Your task to perform on an android device: Search for "beats solo 3" on amazon.com, select the first entry, and add it to the cart. Image 0: 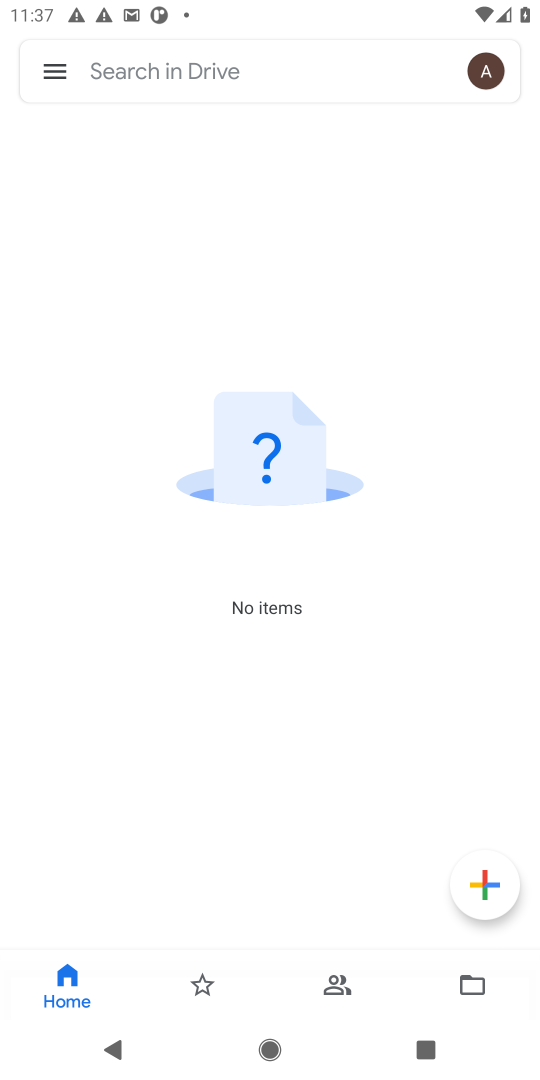
Step 0: press home button
Your task to perform on an android device: Search for "beats solo 3" on amazon.com, select the first entry, and add it to the cart. Image 1: 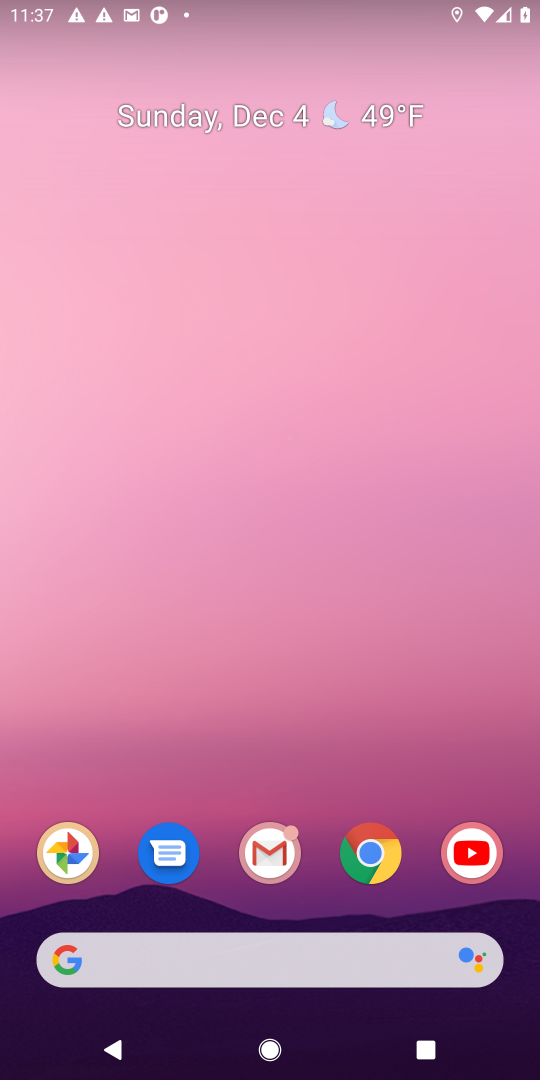
Step 1: click (389, 875)
Your task to perform on an android device: Search for "beats solo 3" on amazon.com, select the first entry, and add it to the cart. Image 2: 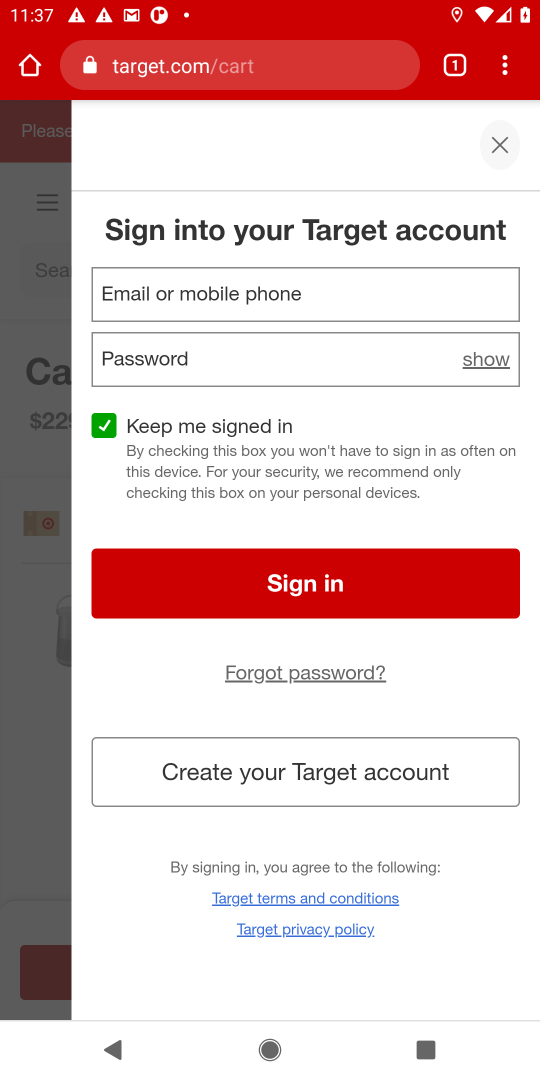
Step 2: click (167, 43)
Your task to perform on an android device: Search for "beats solo 3" on amazon.com, select the first entry, and add it to the cart. Image 3: 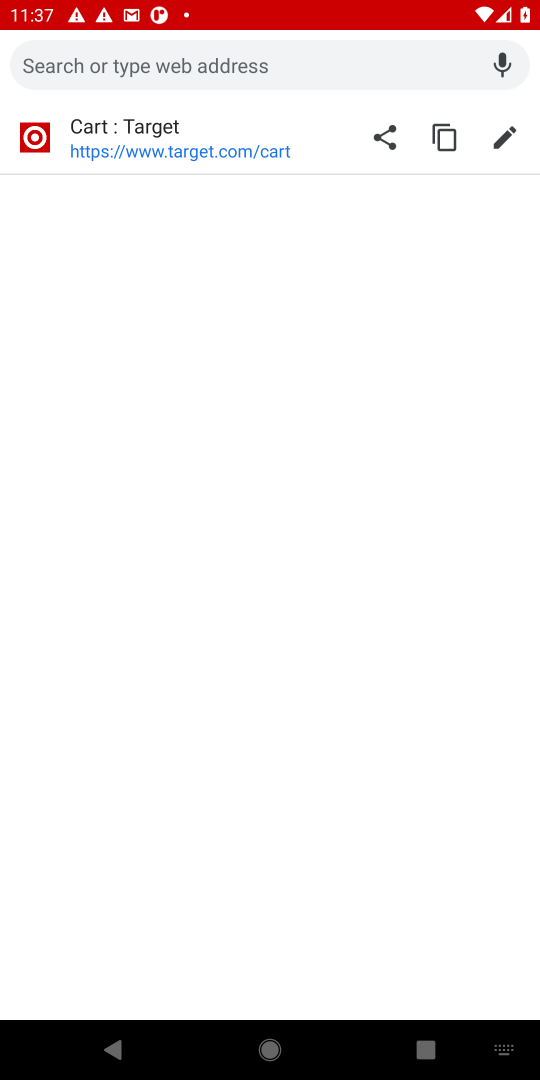
Step 3: type "amazon"
Your task to perform on an android device: Search for "beats solo 3" on amazon.com, select the first entry, and add it to the cart. Image 4: 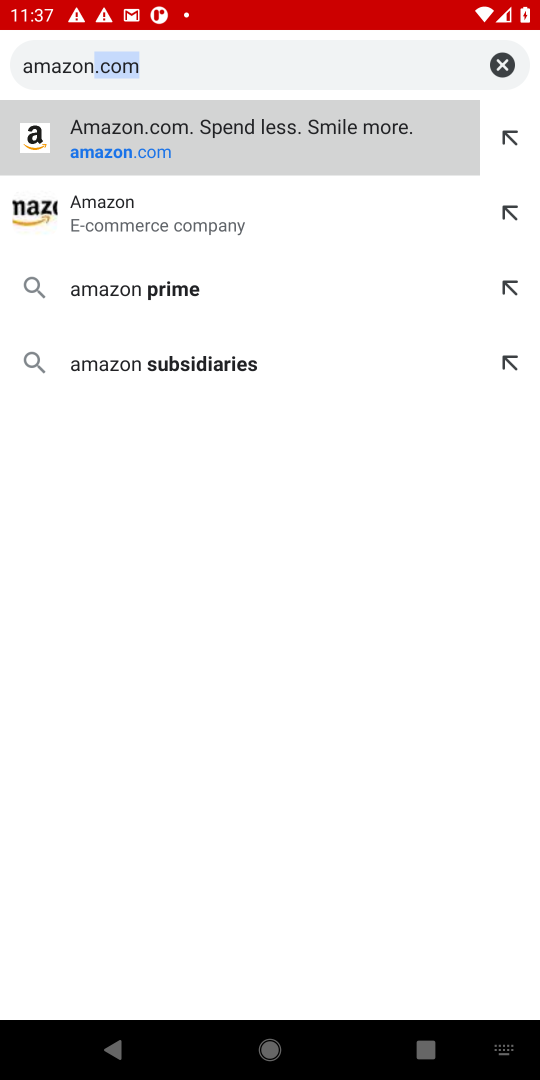
Step 4: click (274, 122)
Your task to perform on an android device: Search for "beats solo 3" on amazon.com, select the first entry, and add it to the cart. Image 5: 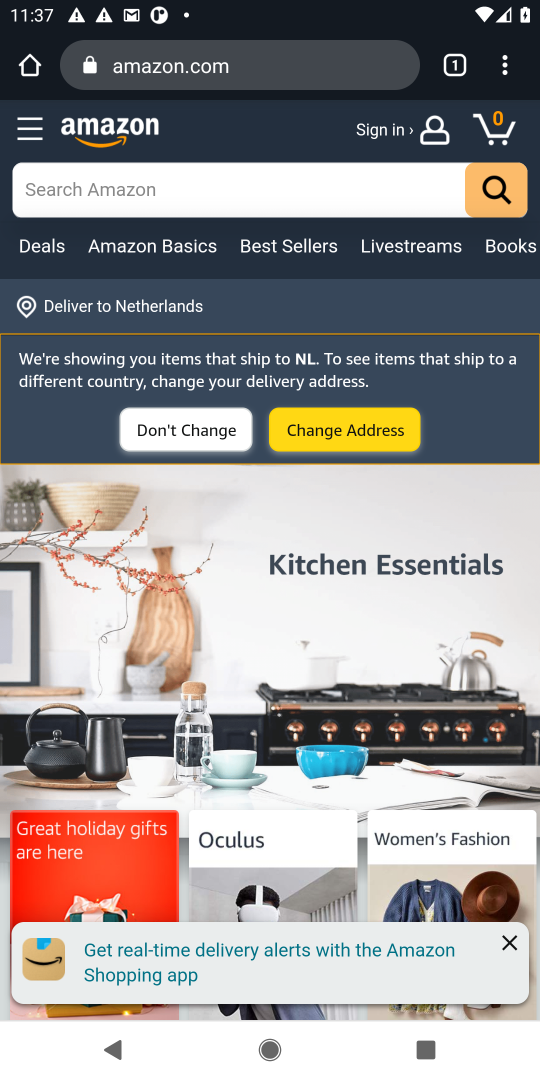
Step 5: click (89, 191)
Your task to perform on an android device: Search for "beats solo 3" on amazon.com, select the first entry, and add it to the cart. Image 6: 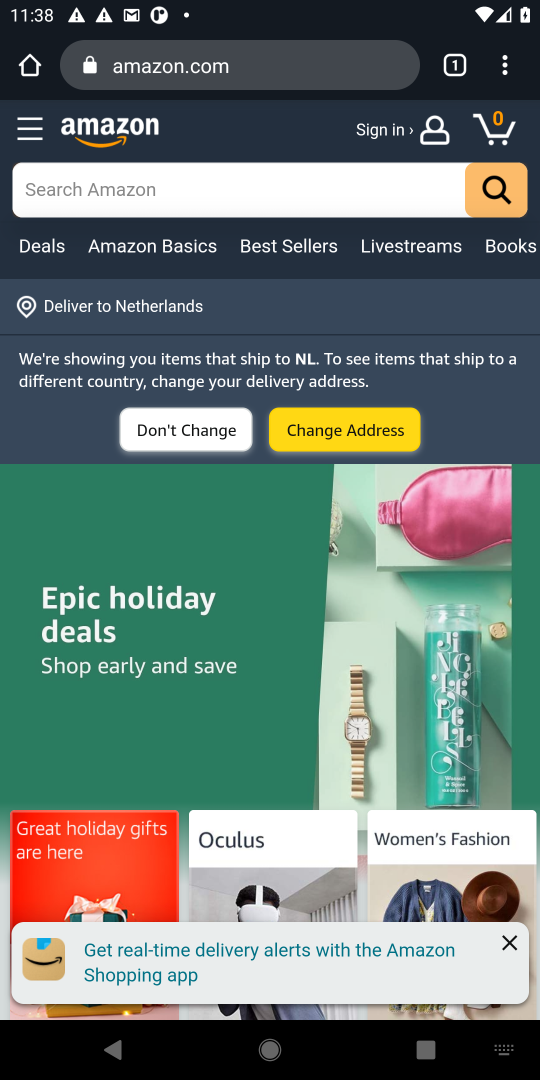
Step 6: click (185, 186)
Your task to perform on an android device: Search for "beats solo 3" on amazon.com, select the first entry, and add it to the cart. Image 7: 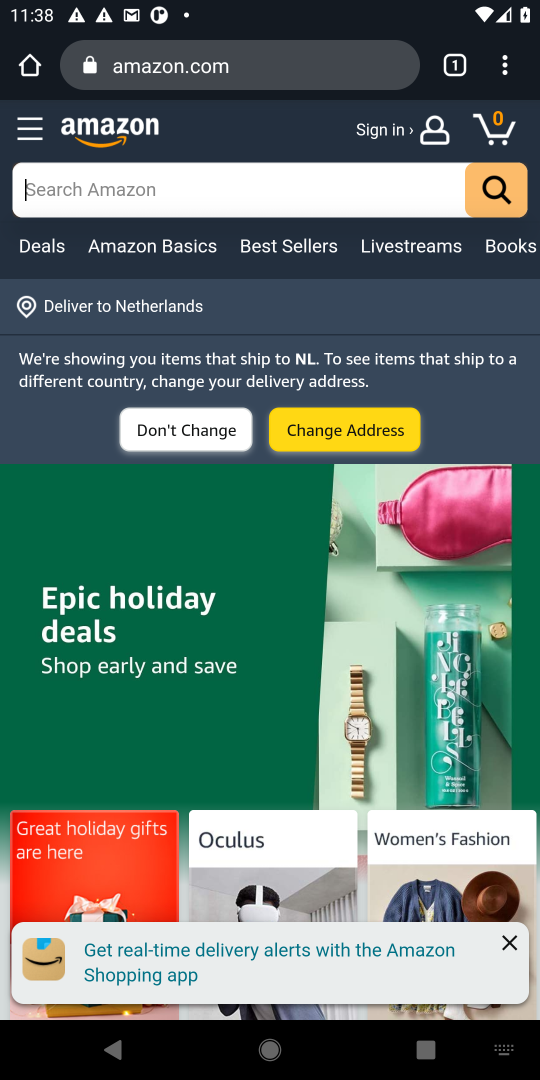
Step 7: type "beats solo 3"
Your task to perform on an android device: Search for "beats solo 3" on amazon.com, select the first entry, and add it to the cart. Image 8: 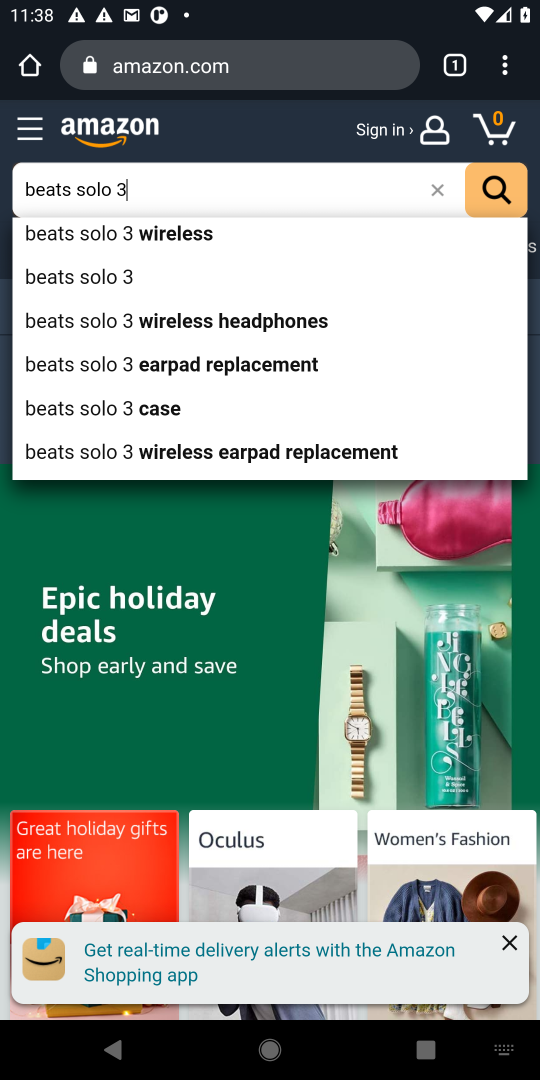
Step 8: click (517, 193)
Your task to perform on an android device: Search for "beats solo 3" on amazon.com, select the first entry, and add it to the cart. Image 9: 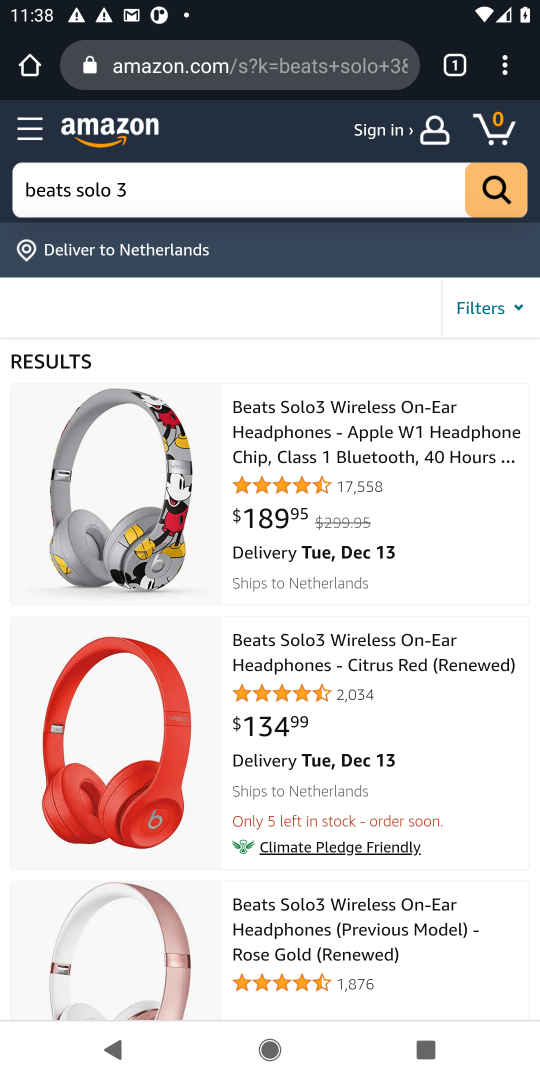
Step 9: click (287, 418)
Your task to perform on an android device: Search for "beats solo 3" on amazon.com, select the first entry, and add it to the cart. Image 10: 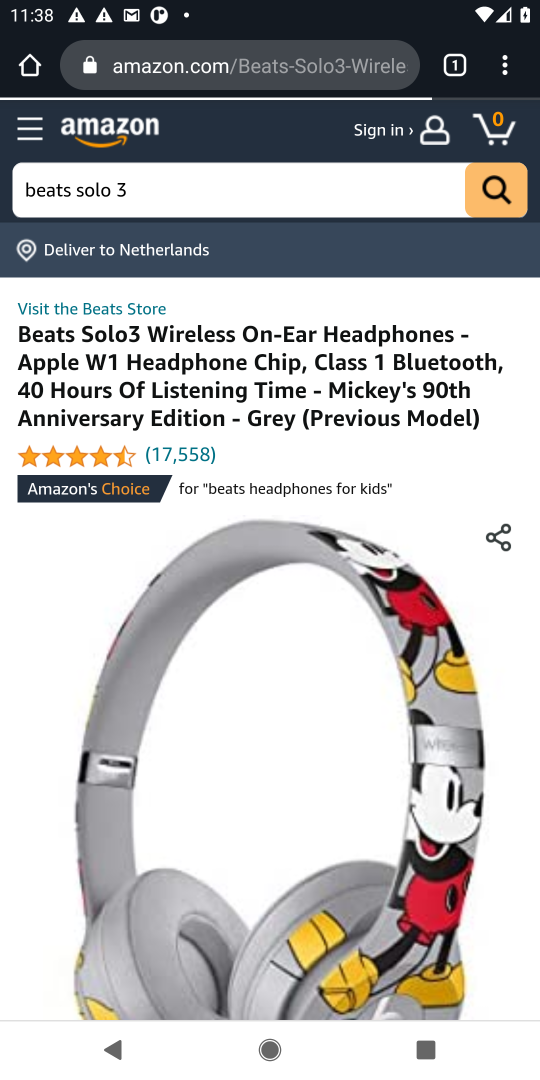
Step 10: drag from (289, 906) to (310, 252)
Your task to perform on an android device: Search for "beats solo 3" on amazon.com, select the first entry, and add it to the cart. Image 11: 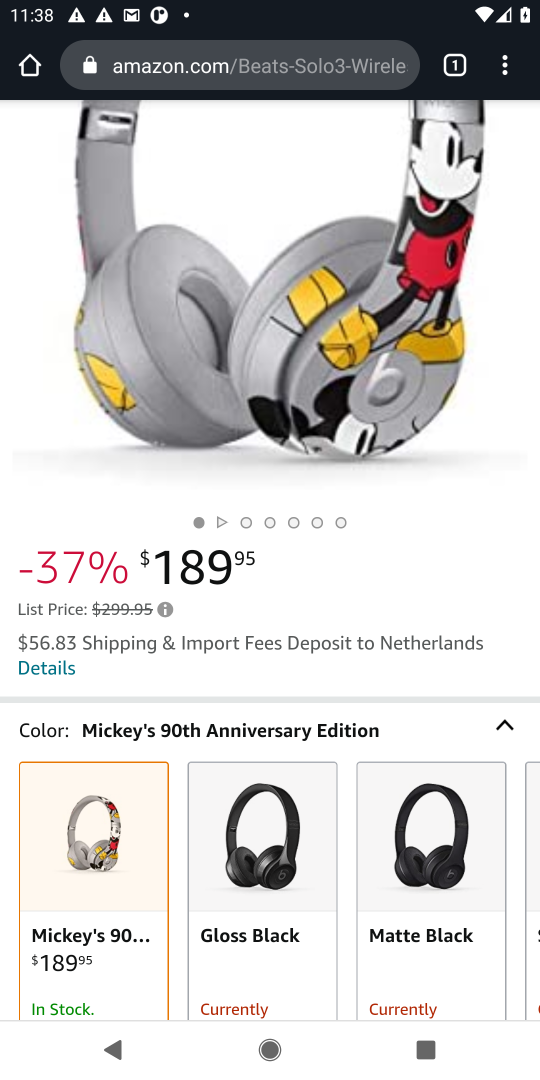
Step 11: drag from (203, 664) to (245, 168)
Your task to perform on an android device: Search for "beats solo 3" on amazon.com, select the first entry, and add it to the cart. Image 12: 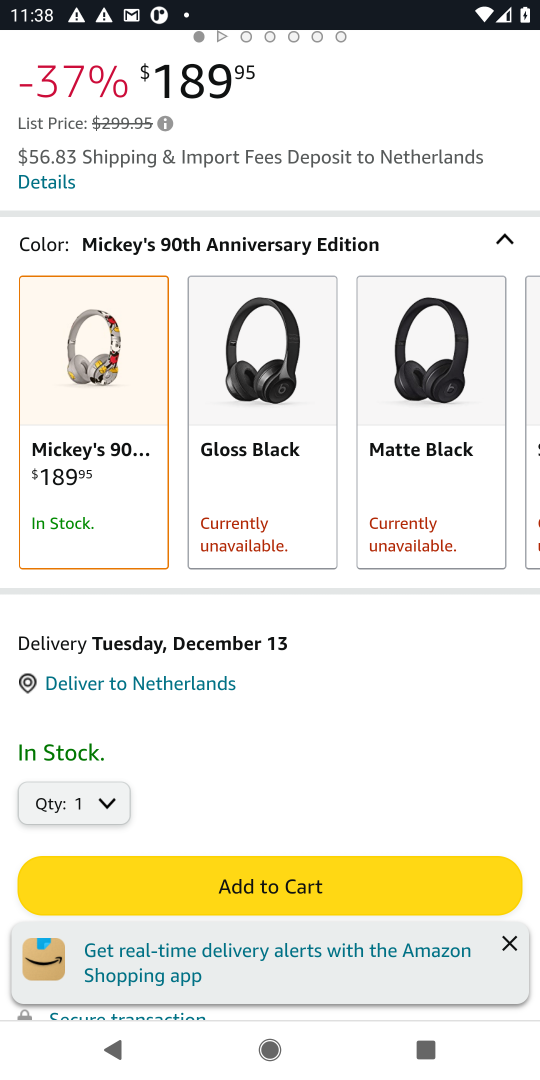
Step 12: click (329, 868)
Your task to perform on an android device: Search for "beats solo 3" on amazon.com, select the first entry, and add it to the cart. Image 13: 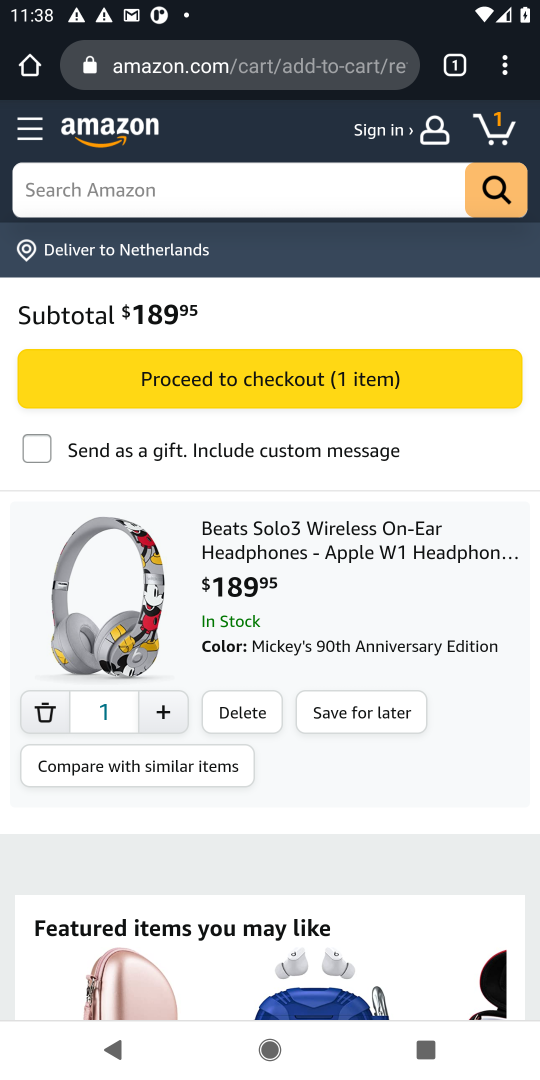
Step 13: task complete